Your task to perform on an android device: Open CNN.com Image 0: 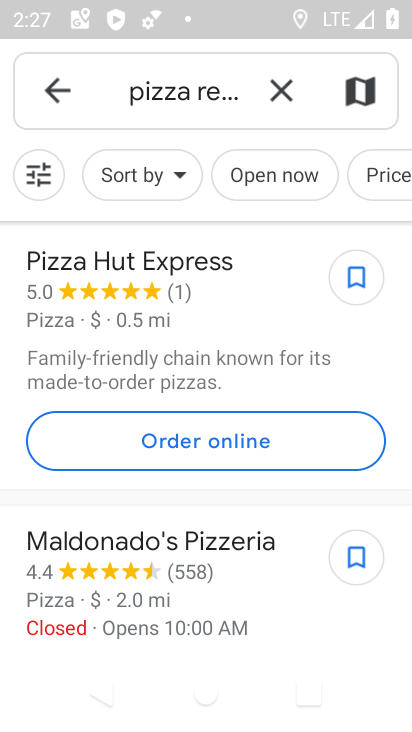
Step 0: press home button
Your task to perform on an android device: Open CNN.com Image 1: 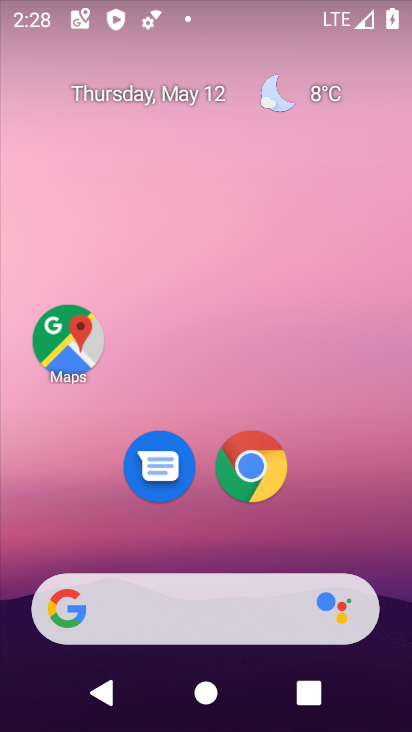
Step 1: click (248, 478)
Your task to perform on an android device: Open CNN.com Image 2: 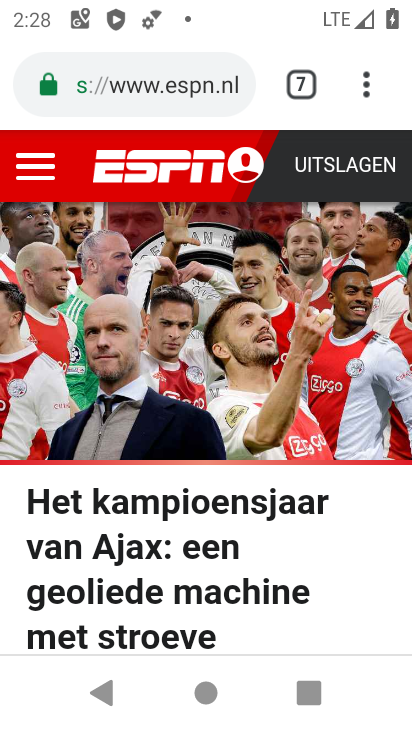
Step 2: click (298, 79)
Your task to perform on an android device: Open CNN.com Image 3: 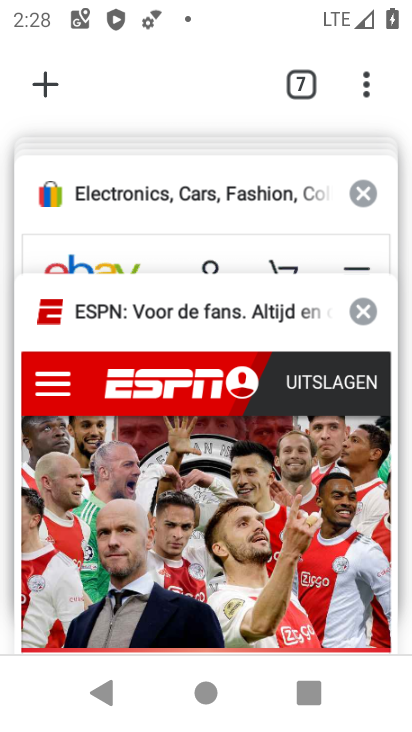
Step 3: drag from (173, 202) to (122, 556)
Your task to perform on an android device: Open CNN.com Image 4: 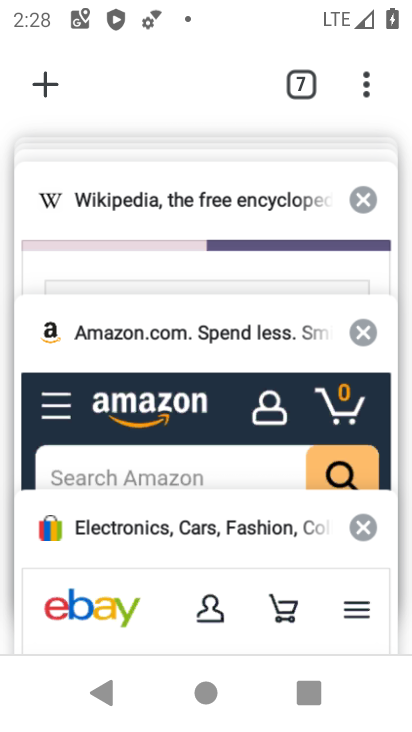
Step 4: drag from (133, 202) to (140, 570)
Your task to perform on an android device: Open CNN.com Image 5: 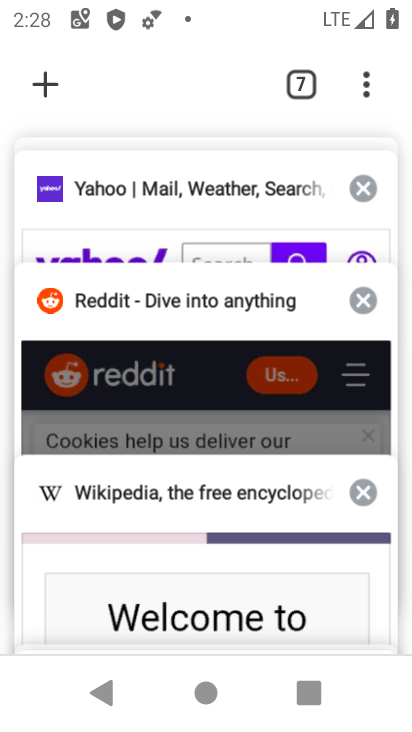
Step 5: drag from (71, 214) to (83, 431)
Your task to perform on an android device: Open CNN.com Image 6: 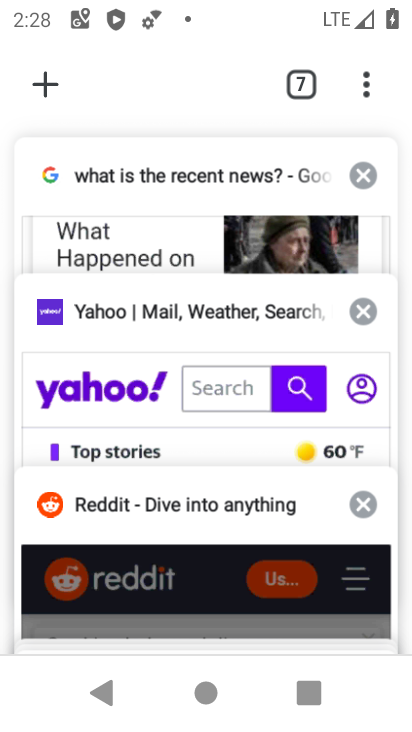
Step 6: click (49, 80)
Your task to perform on an android device: Open CNN.com Image 7: 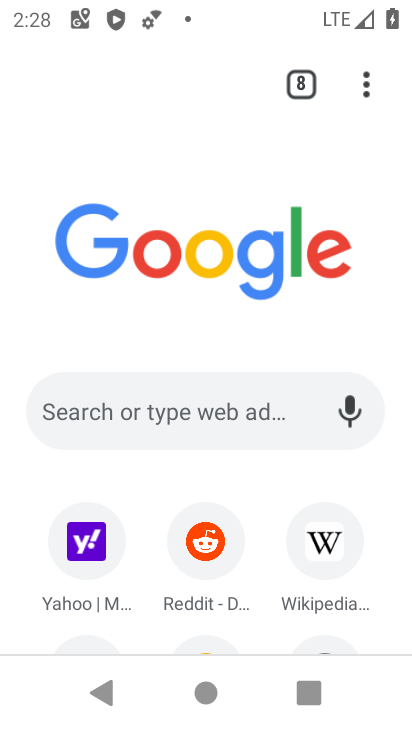
Step 7: click (86, 418)
Your task to perform on an android device: Open CNN.com Image 8: 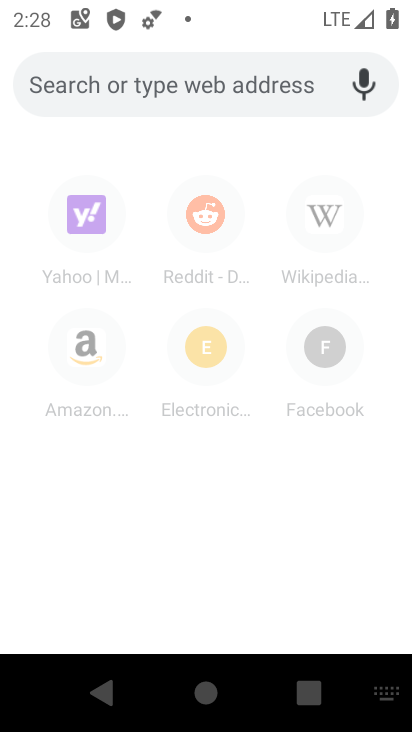
Step 8: type "cnn.com"
Your task to perform on an android device: Open CNN.com Image 9: 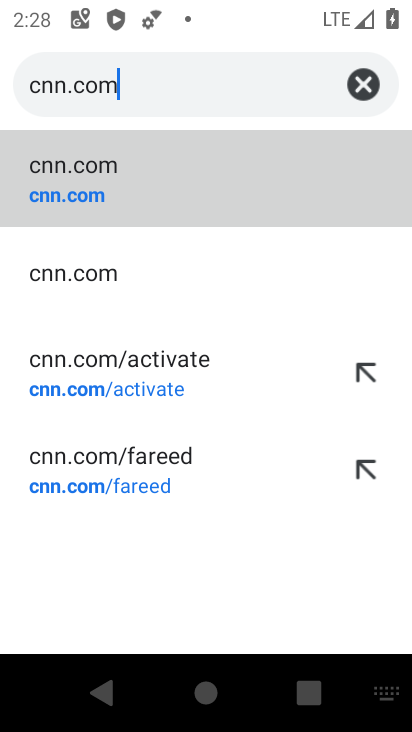
Step 9: click (68, 196)
Your task to perform on an android device: Open CNN.com Image 10: 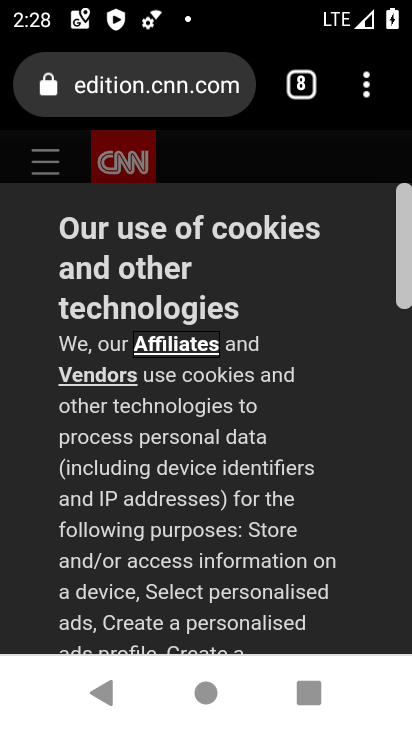
Step 10: drag from (254, 631) to (238, 273)
Your task to perform on an android device: Open CNN.com Image 11: 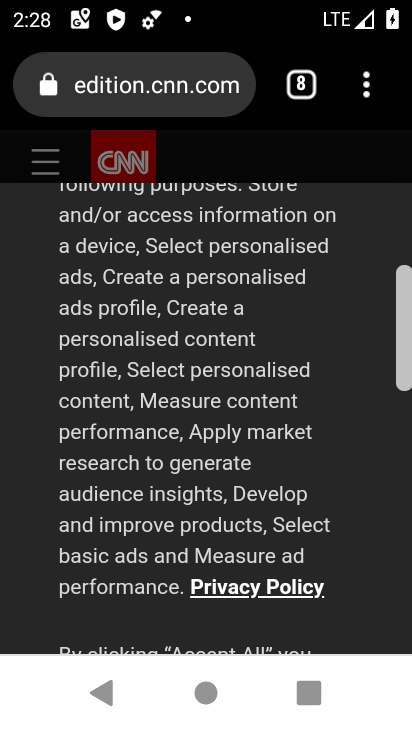
Step 11: drag from (245, 603) to (239, 349)
Your task to perform on an android device: Open CNN.com Image 12: 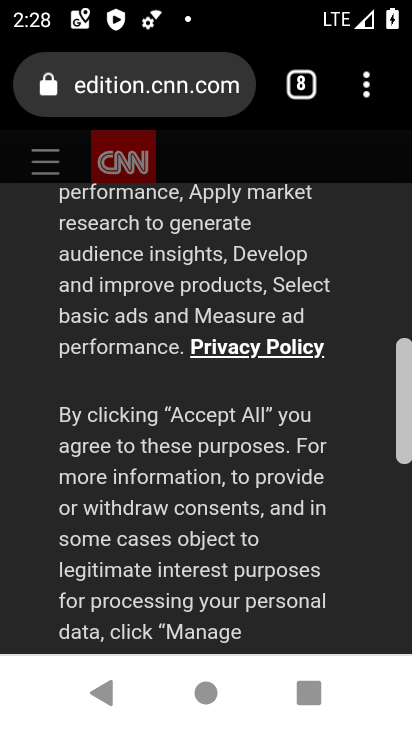
Step 12: drag from (236, 586) to (229, 287)
Your task to perform on an android device: Open CNN.com Image 13: 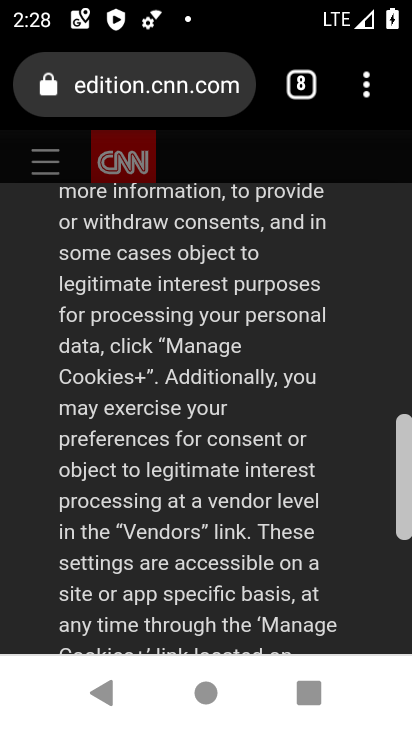
Step 13: drag from (265, 599) to (205, 223)
Your task to perform on an android device: Open CNN.com Image 14: 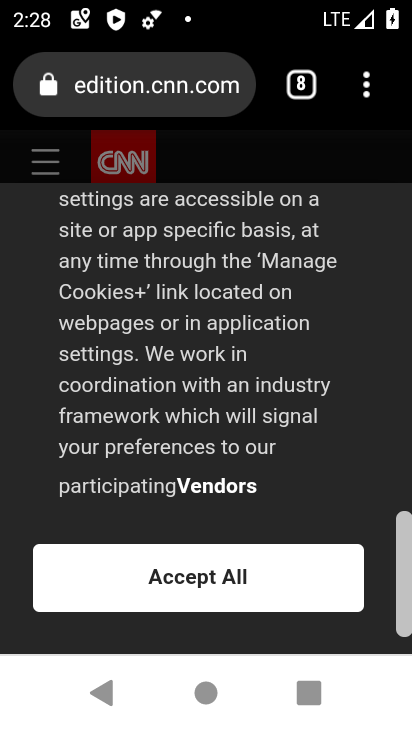
Step 14: click (230, 571)
Your task to perform on an android device: Open CNN.com Image 15: 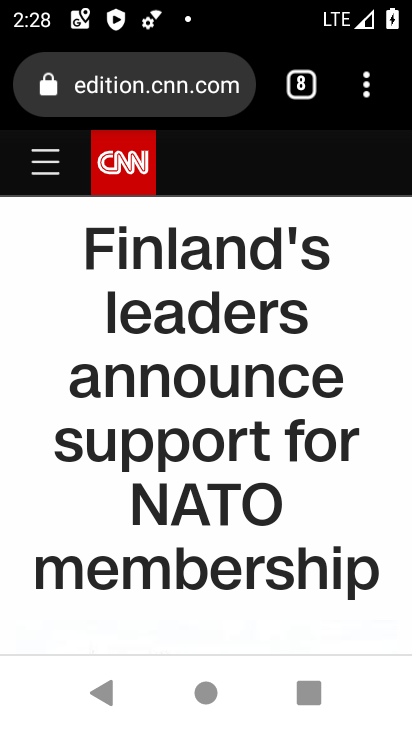
Step 15: task complete